Your task to perform on an android device: read, delete, or share a saved page in the chrome app Image 0: 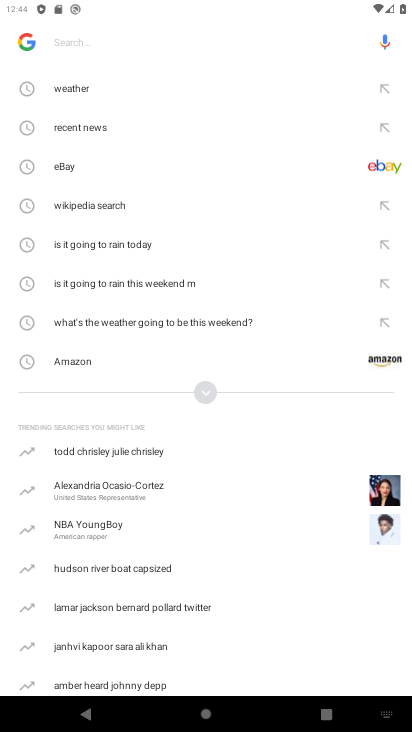
Step 0: press home button
Your task to perform on an android device: read, delete, or share a saved page in the chrome app Image 1: 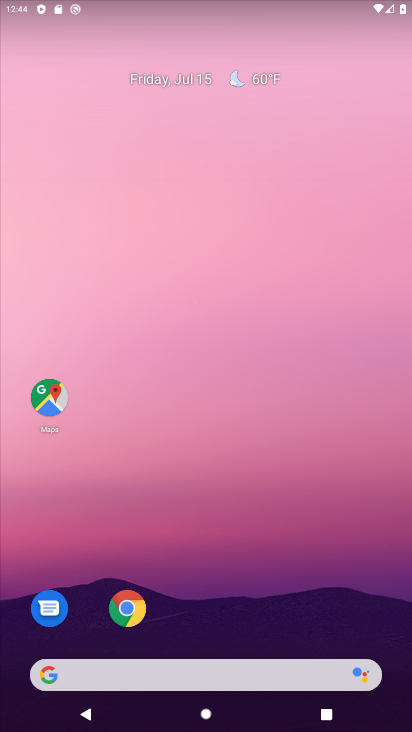
Step 1: drag from (305, 552) to (242, 39)
Your task to perform on an android device: read, delete, or share a saved page in the chrome app Image 2: 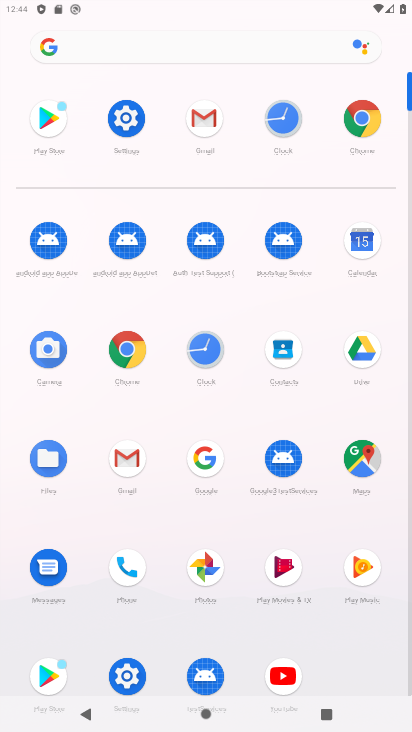
Step 2: click (351, 122)
Your task to perform on an android device: read, delete, or share a saved page in the chrome app Image 3: 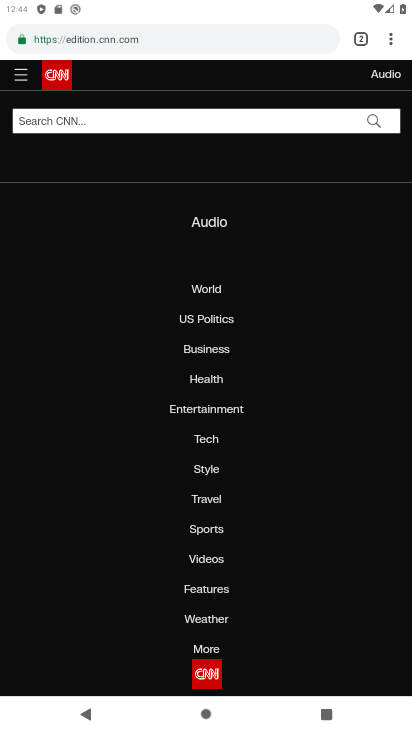
Step 3: drag from (398, 28) to (344, 142)
Your task to perform on an android device: read, delete, or share a saved page in the chrome app Image 4: 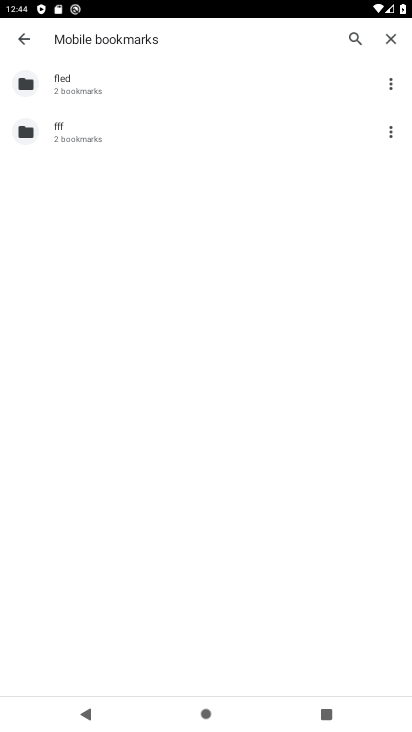
Step 4: press back button
Your task to perform on an android device: read, delete, or share a saved page in the chrome app Image 5: 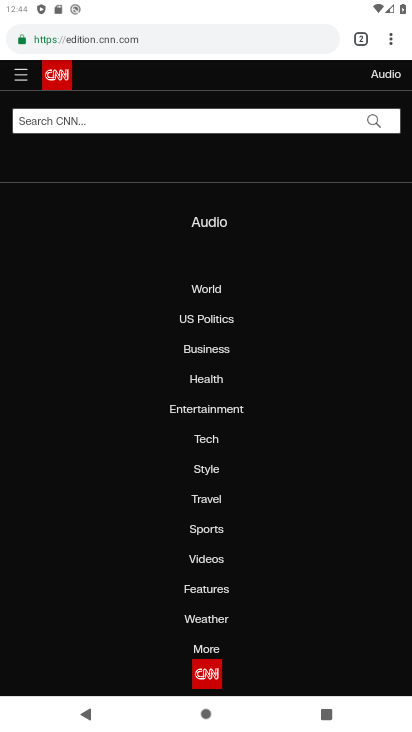
Step 5: drag from (392, 41) to (228, 493)
Your task to perform on an android device: read, delete, or share a saved page in the chrome app Image 6: 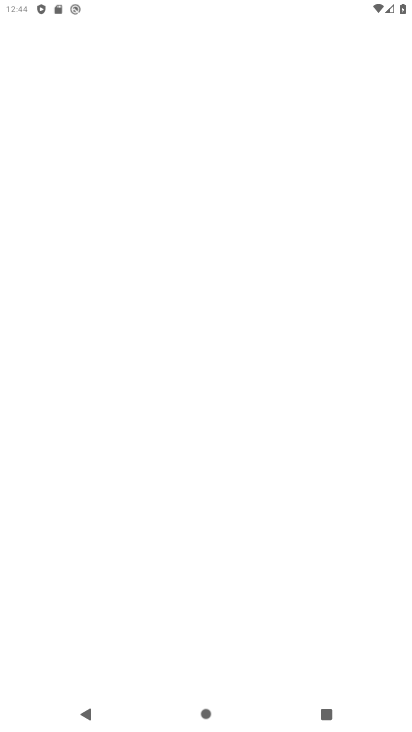
Step 6: press back button
Your task to perform on an android device: read, delete, or share a saved page in the chrome app Image 7: 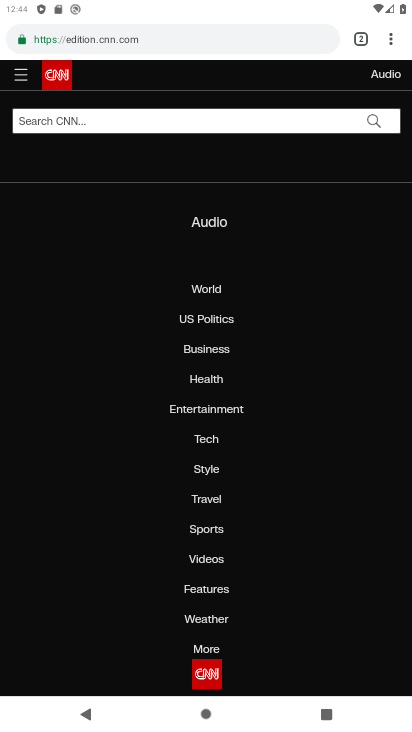
Step 7: drag from (389, 28) to (235, 252)
Your task to perform on an android device: read, delete, or share a saved page in the chrome app Image 8: 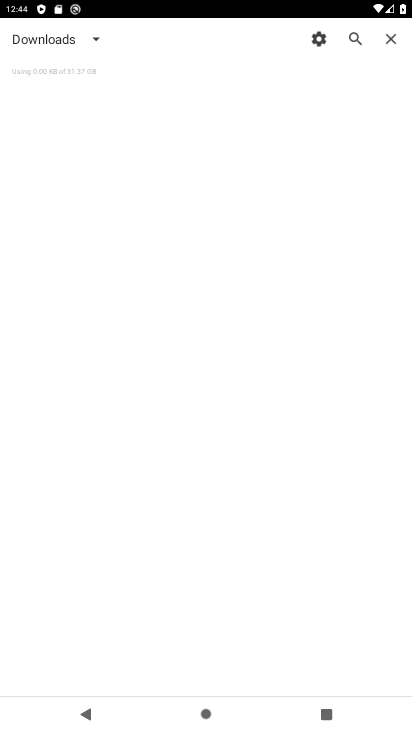
Step 8: click (87, 56)
Your task to perform on an android device: read, delete, or share a saved page in the chrome app Image 9: 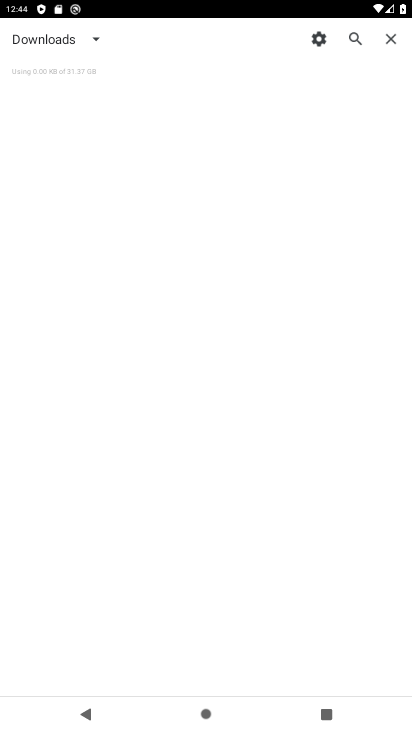
Step 9: click (90, 44)
Your task to perform on an android device: read, delete, or share a saved page in the chrome app Image 10: 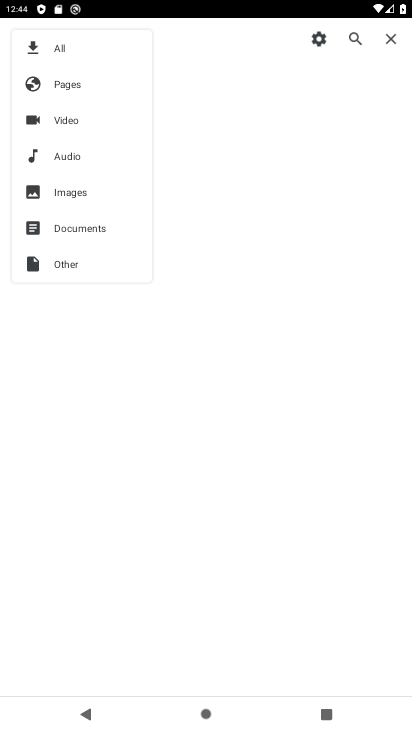
Step 10: click (66, 86)
Your task to perform on an android device: read, delete, or share a saved page in the chrome app Image 11: 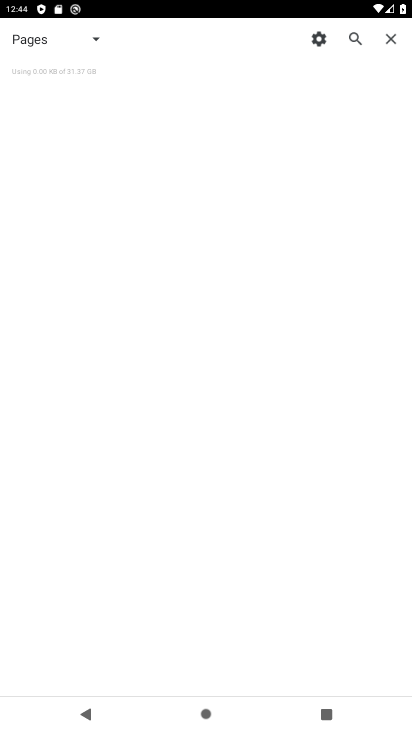
Step 11: task complete